Your task to perform on an android device: Open the stopwatch Image 0: 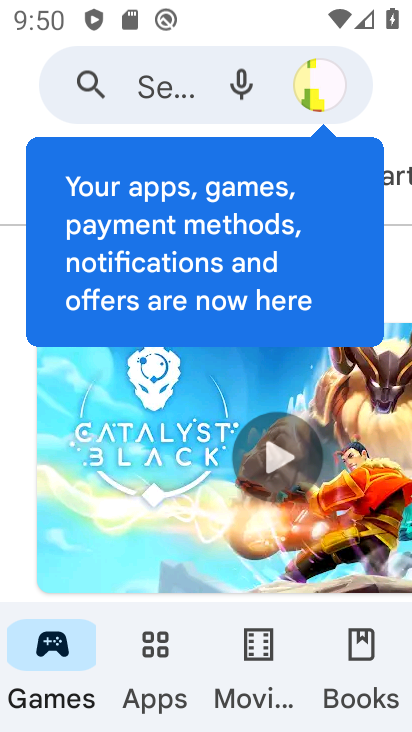
Step 0: press home button
Your task to perform on an android device: Open the stopwatch Image 1: 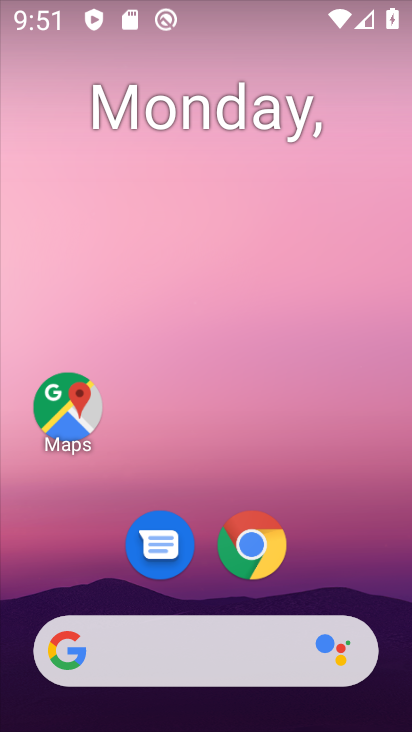
Step 1: drag from (6, 304) to (358, 227)
Your task to perform on an android device: Open the stopwatch Image 2: 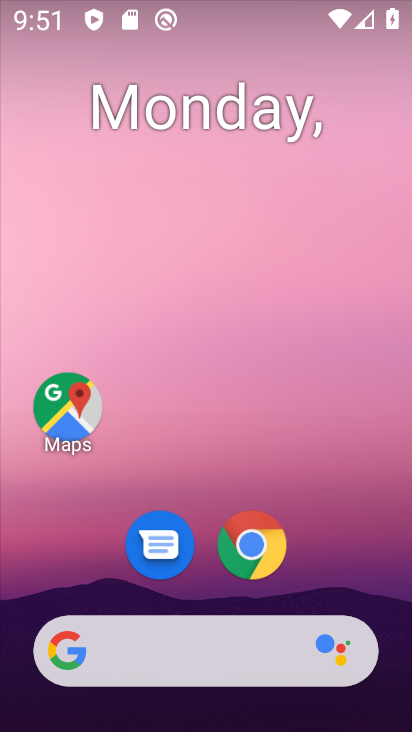
Step 2: drag from (30, 647) to (284, 268)
Your task to perform on an android device: Open the stopwatch Image 3: 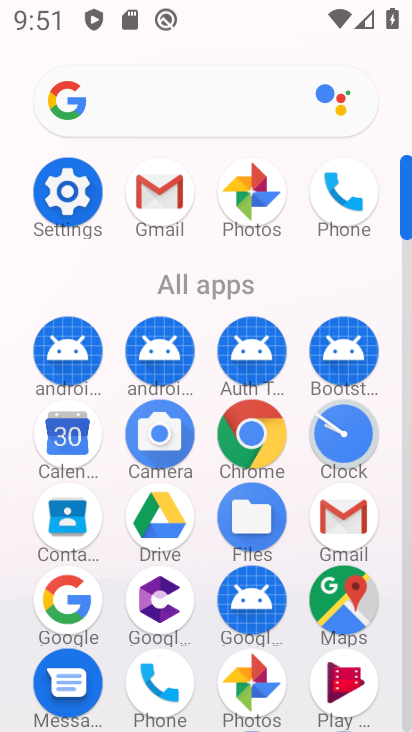
Step 3: click (349, 450)
Your task to perform on an android device: Open the stopwatch Image 4: 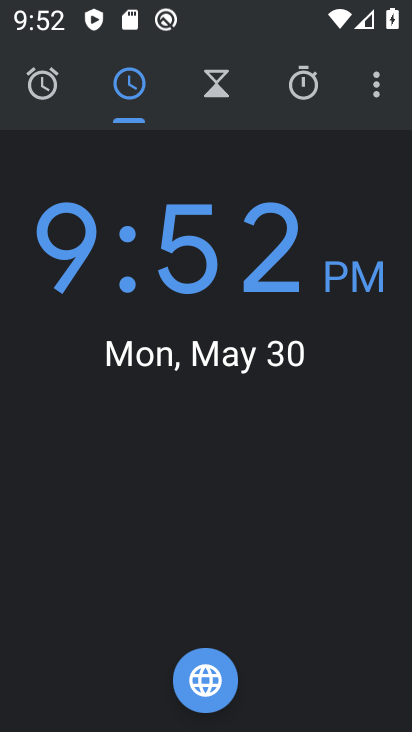
Step 4: press home button
Your task to perform on an android device: Open the stopwatch Image 5: 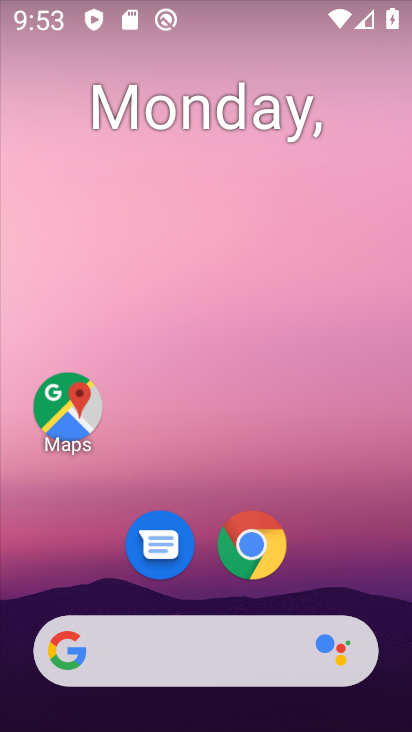
Step 5: drag from (91, 436) to (194, 205)
Your task to perform on an android device: Open the stopwatch Image 6: 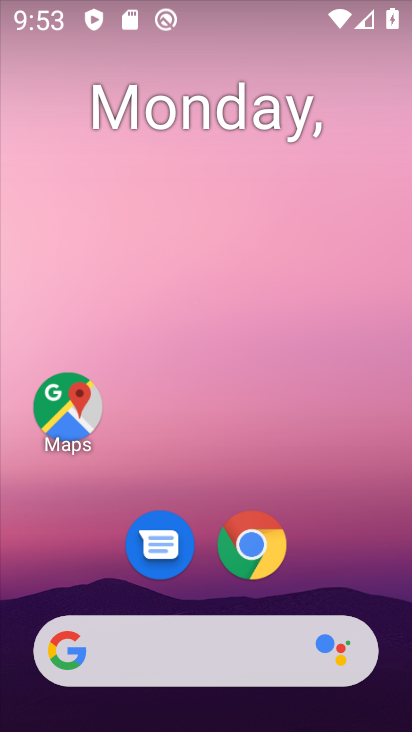
Step 6: drag from (83, 466) to (188, 234)
Your task to perform on an android device: Open the stopwatch Image 7: 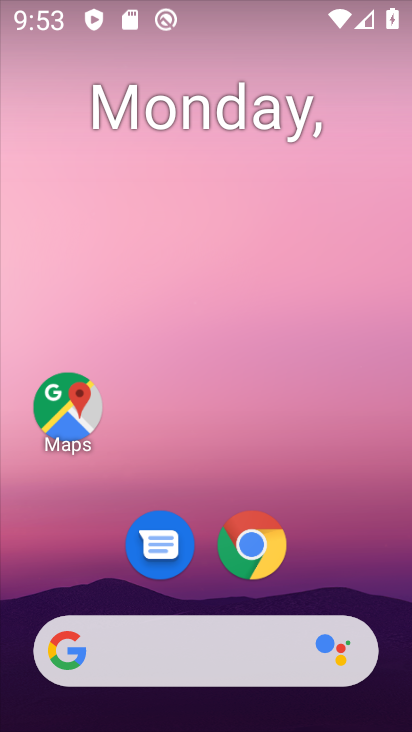
Step 7: drag from (101, 714) to (230, 115)
Your task to perform on an android device: Open the stopwatch Image 8: 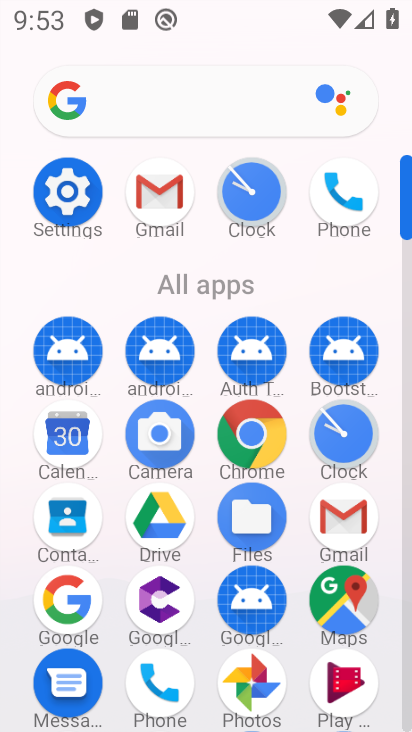
Step 8: click (233, 181)
Your task to perform on an android device: Open the stopwatch Image 9: 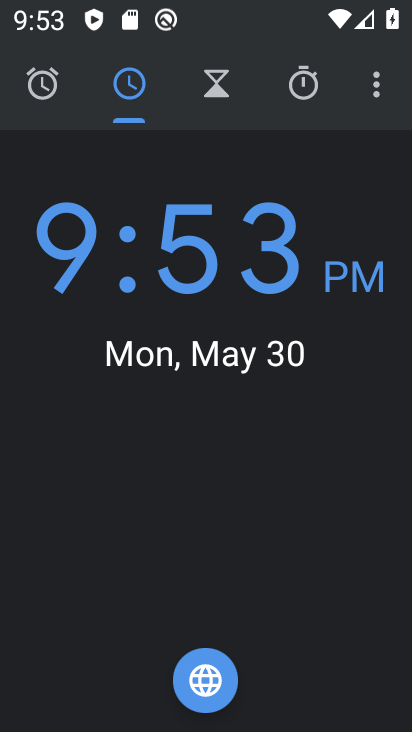
Step 9: click (303, 108)
Your task to perform on an android device: Open the stopwatch Image 10: 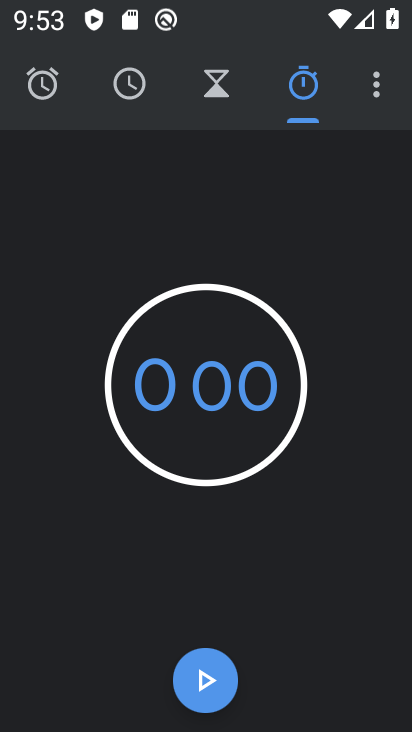
Step 10: task complete